Your task to perform on an android device: Go to ESPN.com Image 0: 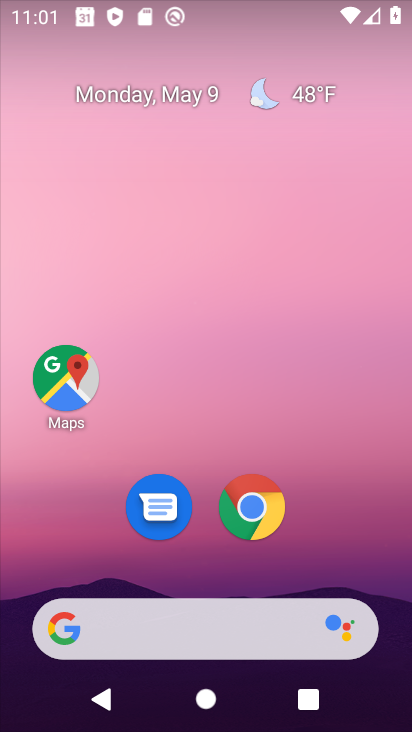
Step 0: click (263, 511)
Your task to perform on an android device: Go to ESPN.com Image 1: 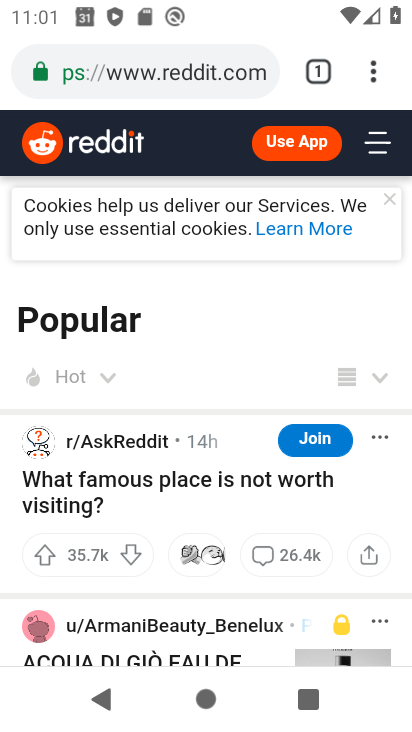
Step 1: click (323, 68)
Your task to perform on an android device: Go to ESPN.com Image 2: 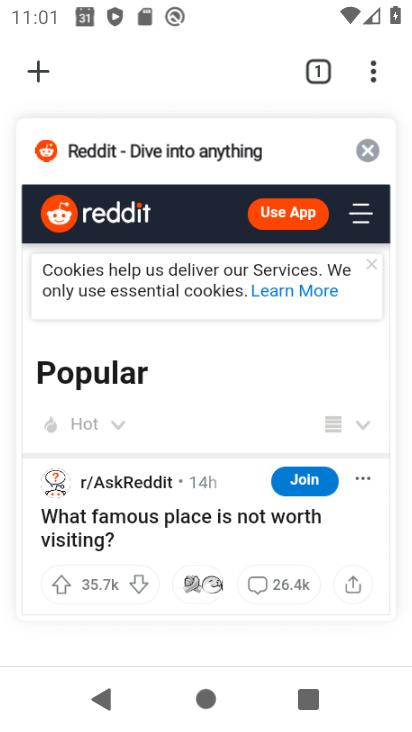
Step 2: click (42, 72)
Your task to perform on an android device: Go to ESPN.com Image 3: 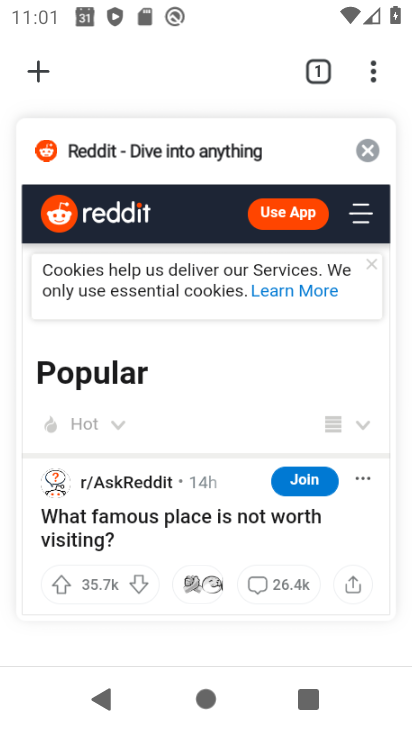
Step 3: click (41, 72)
Your task to perform on an android device: Go to ESPN.com Image 4: 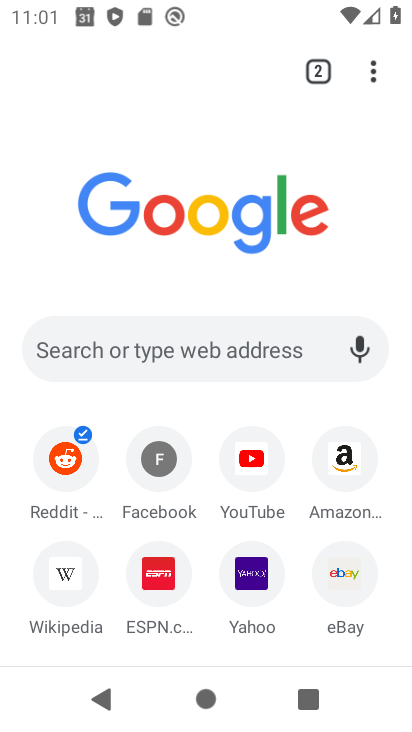
Step 4: click (164, 590)
Your task to perform on an android device: Go to ESPN.com Image 5: 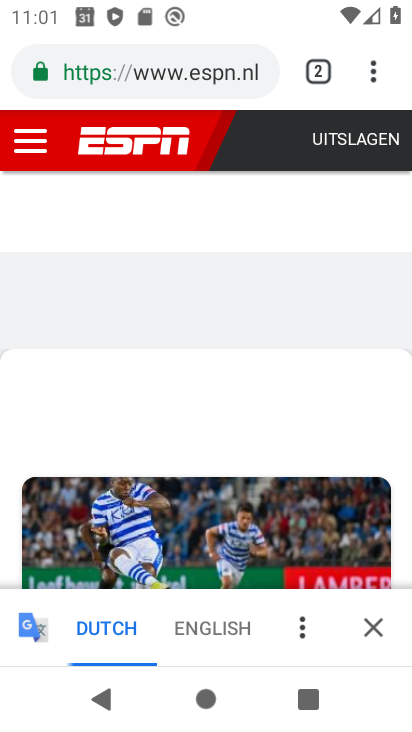
Step 5: task complete